Your task to perform on an android device: turn notification dots on Image 0: 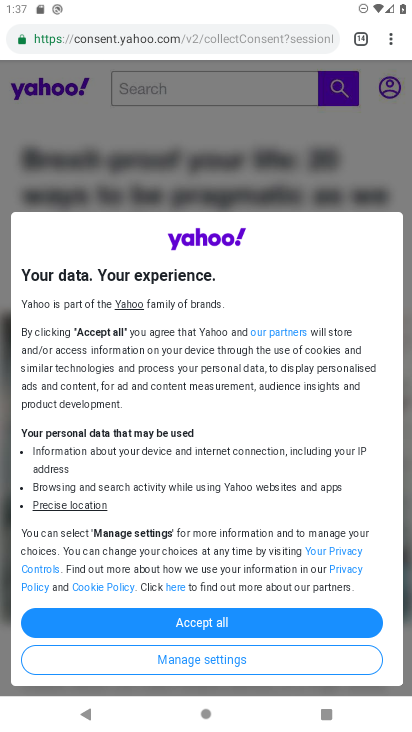
Step 0: press home button
Your task to perform on an android device: turn notification dots on Image 1: 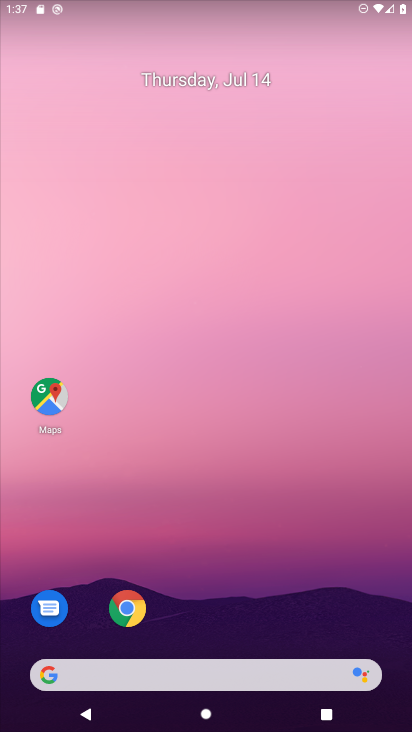
Step 1: drag from (253, 725) to (224, 247)
Your task to perform on an android device: turn notification dots on Image 2: 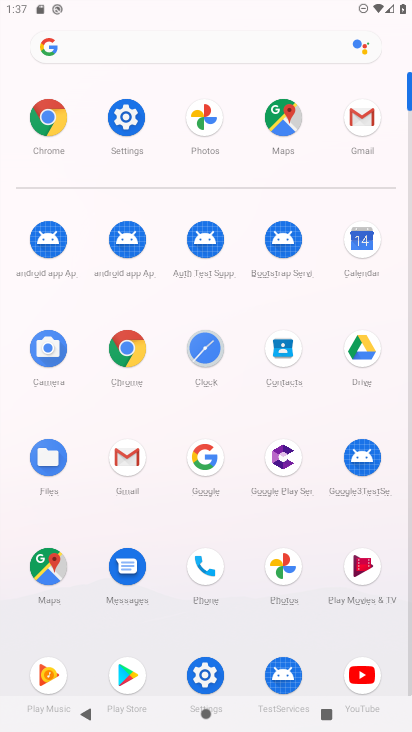
Step 2: click (118, 109)
Your task to perform on an android device: turn notification dots on Image 3: 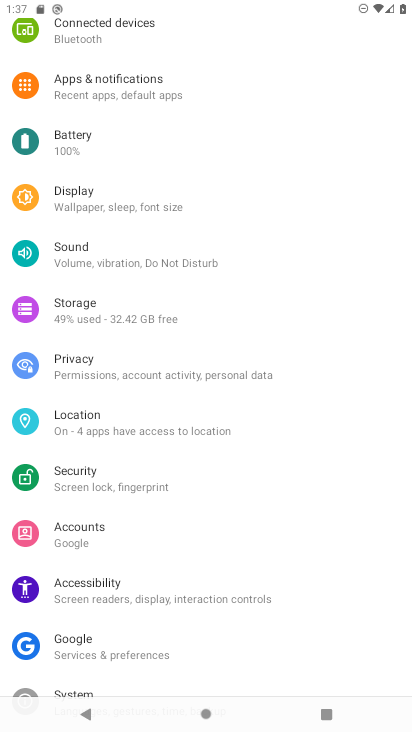
Step 3: click (108, 93)
Your task to perform on an android device: turn notification dots on Image 4: 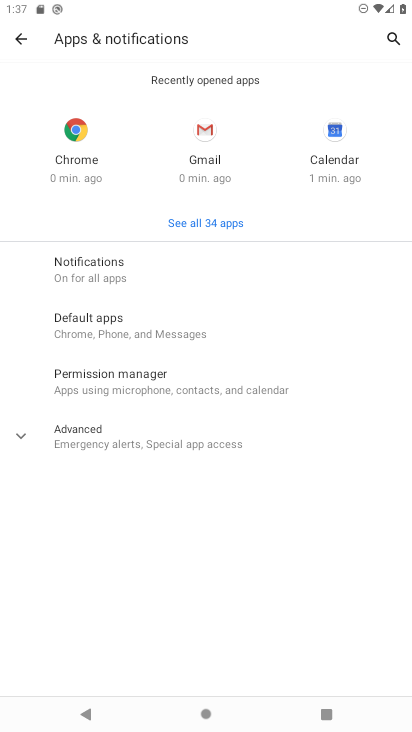
Step 4: click (89, 263)
Your task to perform on an android device: turn notification dots on Image 5: 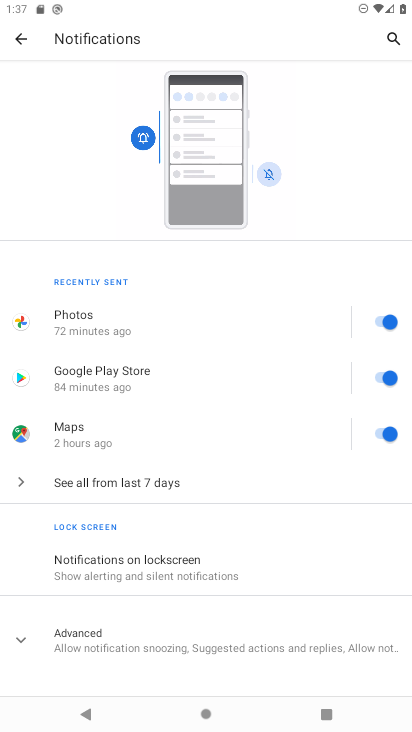
Step 5: click (135, 613)
Your task to perform on an android device: turn notification dots on Image 6: 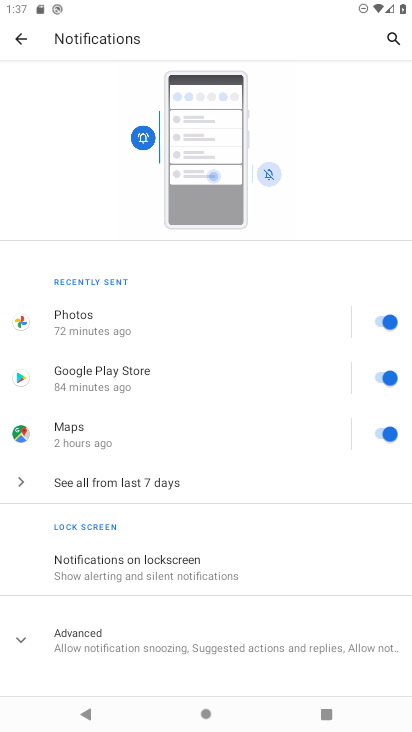
Step 6: drag from (123, 460) to (123, 280)
Your task to perform on an android device: turn notification dots on Image 7: 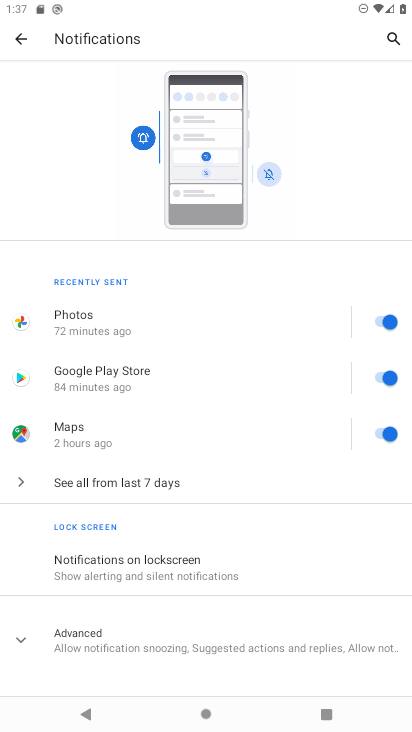
Step 7: click (89, 643)
Your task to perform on an android device: turn notification dots on Image 8: 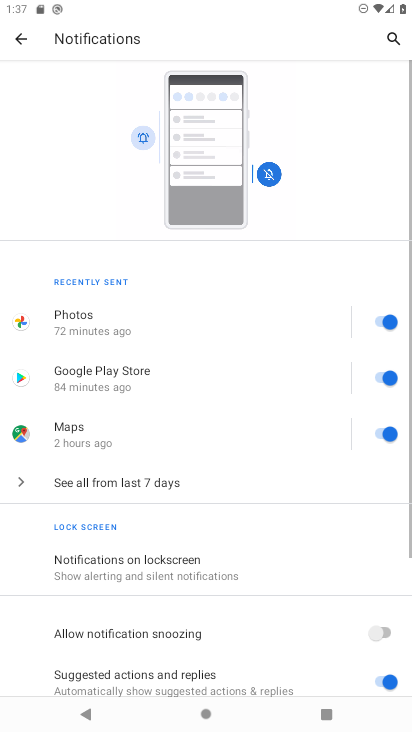
Step 8: drag from (257, 618) to (260, 388)
Your task to perform on an android device: turn notification dots on Image 9: 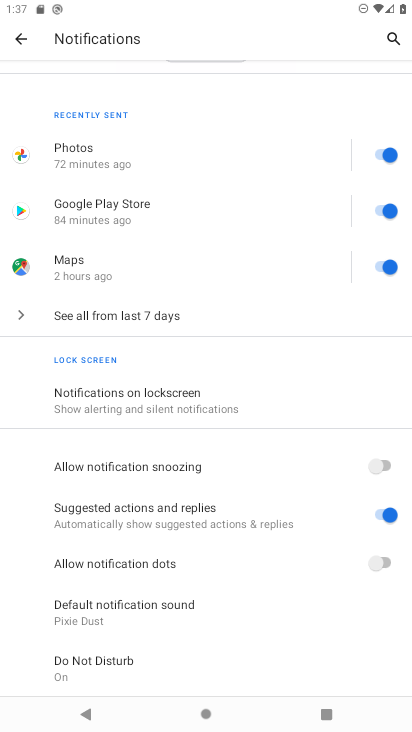
Step 9: click (380, 564)
Your task to perform on an android device: turn notification dots on Image 10: 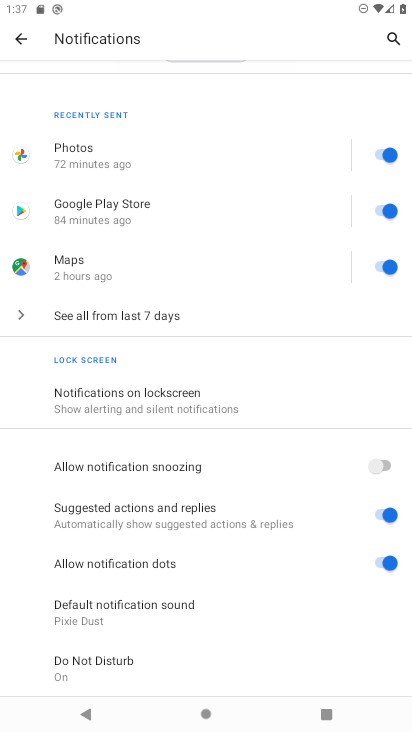
Step 10: task complete